Your task to perform on an android device: toggle wifi Image 0: 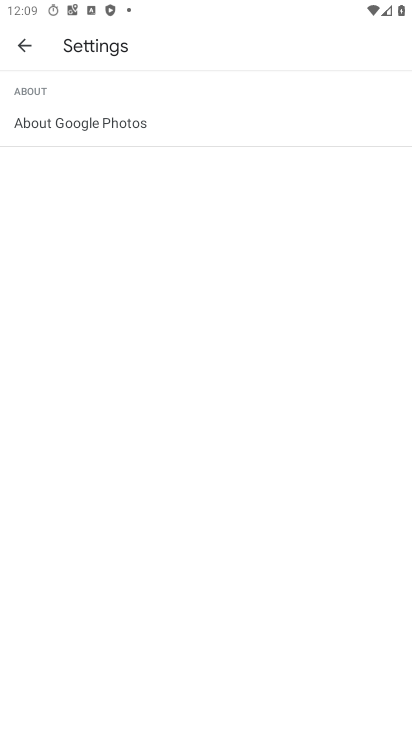
Step 0: press home button
Your task to perform on an android device: toggle wifi Image 1: 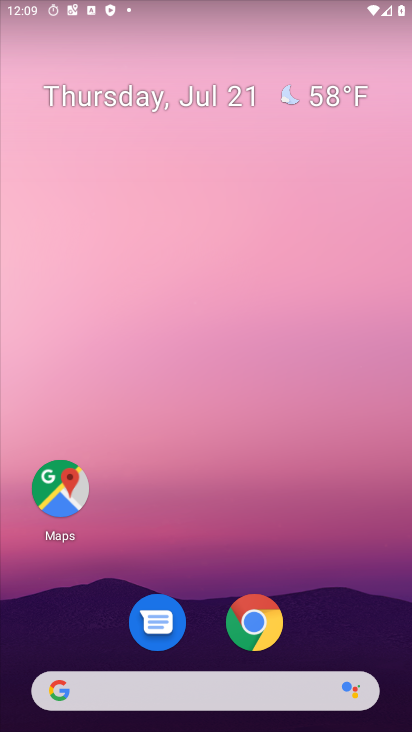
Step 1: drag from (25, 663) to (274, 170)
Your task to perform on an android device: toggle wifi Image 2: 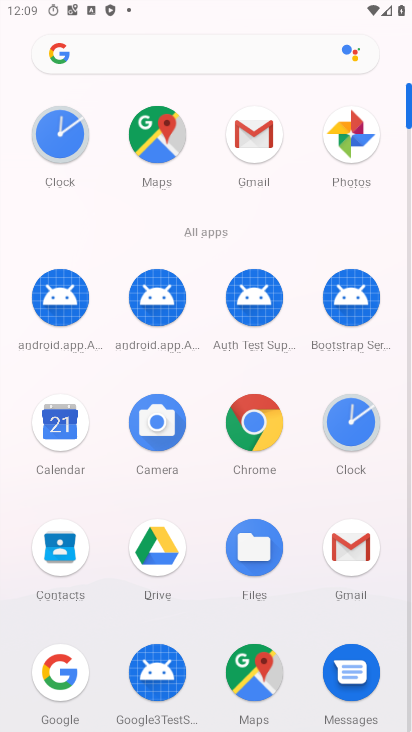
Step 2: drag from (122, 660) to (198, 310)
Your task to perform on an android device: toggle wifi Image 3: 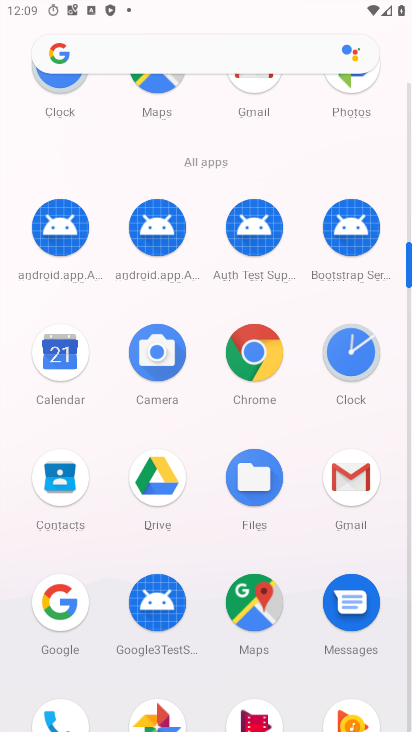
Step 3: drag from (170, 528) to (211, 332)
Your task to perform on an android device: toggle wifi Image 4: 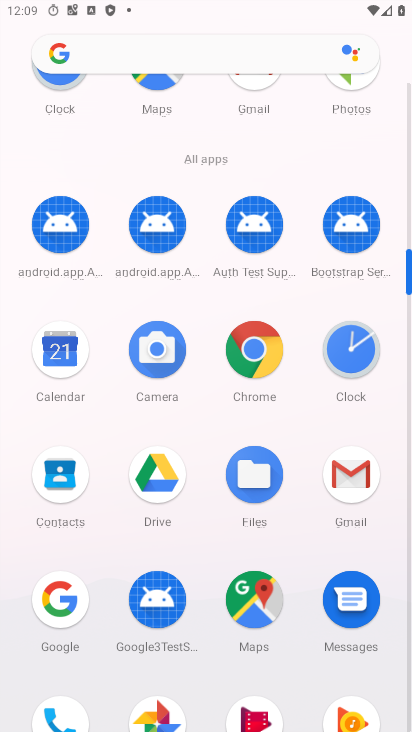
Step 4: drag from (106, 650) to (196, 219)
Your task to perform on an android device: toggle wifi Image 5: 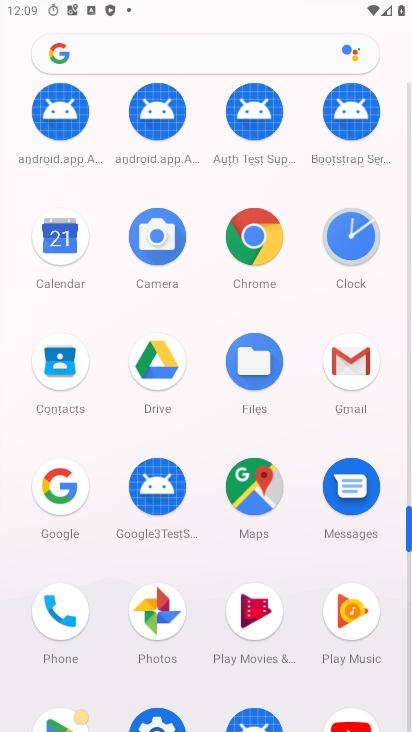
Step 5: drag from (96, 694) to (222, 156)
Your task to perform on an android device: toggle wifi Image 6: 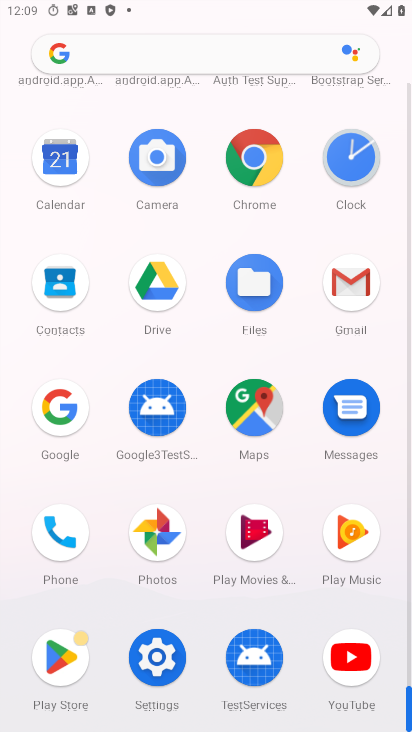
Step 6: click (143, 666)
Your task to perform on an android device: toggle wifi Image 7: 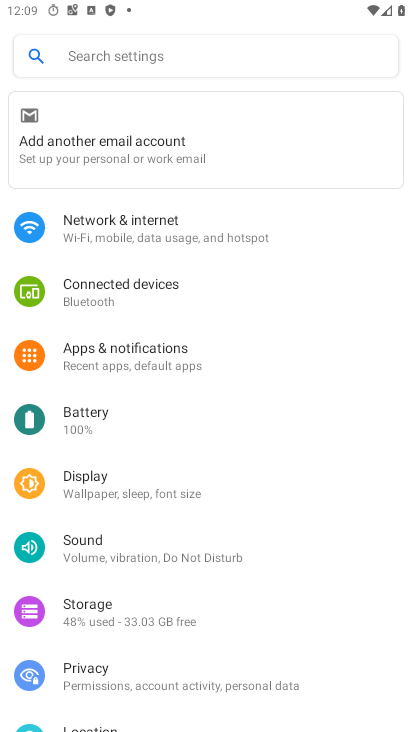
Step 7: click (135, 201)
Your task to perform on an android device: toggle wifi Image 8: 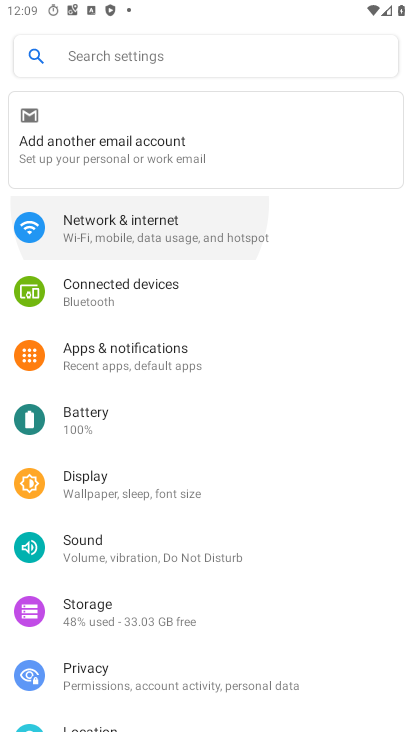
Step 8: click (111, 224)
Your task to perform on an android device: toggle wifi Image 9: 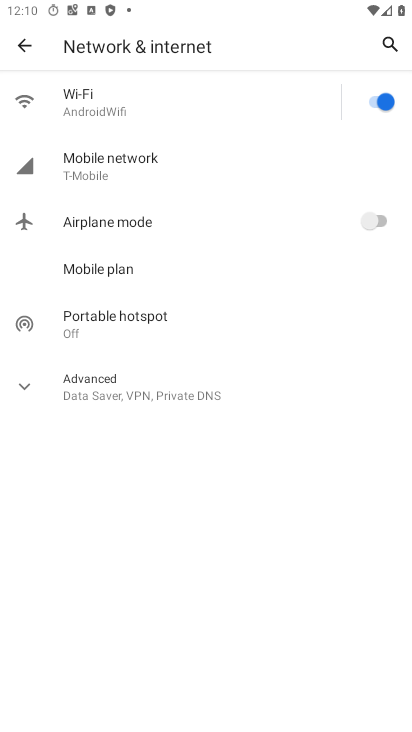
Step 9: task complete